Your task to perform on an android device: Search for pizza restaurants on Maps Image 0: 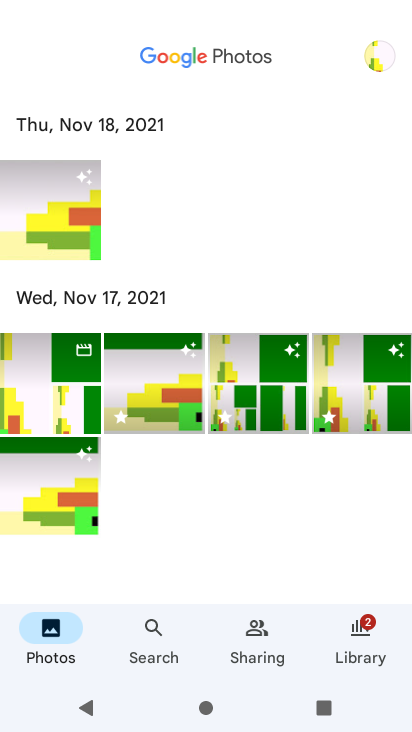
Step 0: press home button
Your task to perform on an android device: Search for pizza restaurants on Maps Image 1: 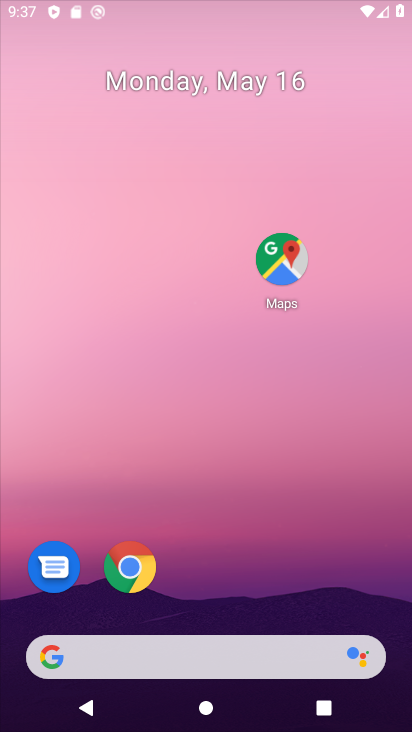
Step 1: drag from (269, 541) to (230, 101)
Your task to perform on an android device: Search for pizza restaurants on Maps Image 2: 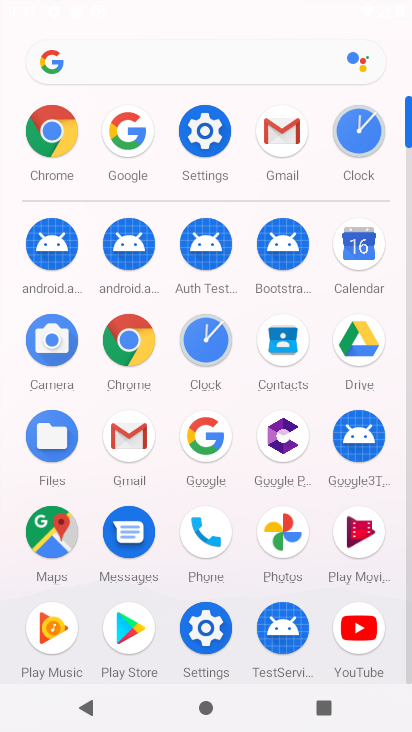
Step 2: click (54, 532)
Your task to perform on an android device: Search for pizza restaurants on Maps Image 3: 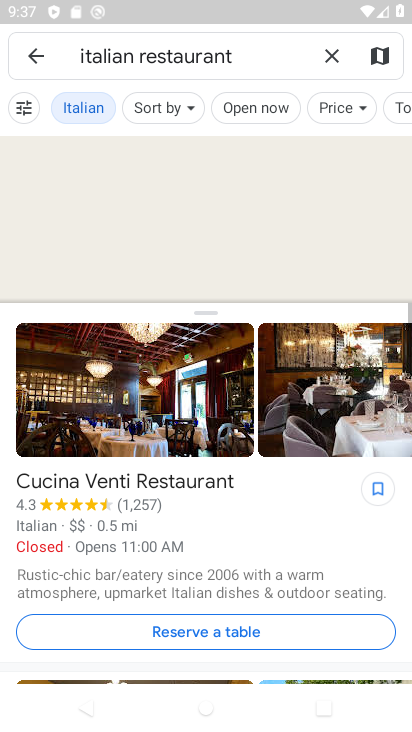
Step 3: click (332, 54)
Your task to perform on an android device: Search for pizza restaurants on Maps Image 4: 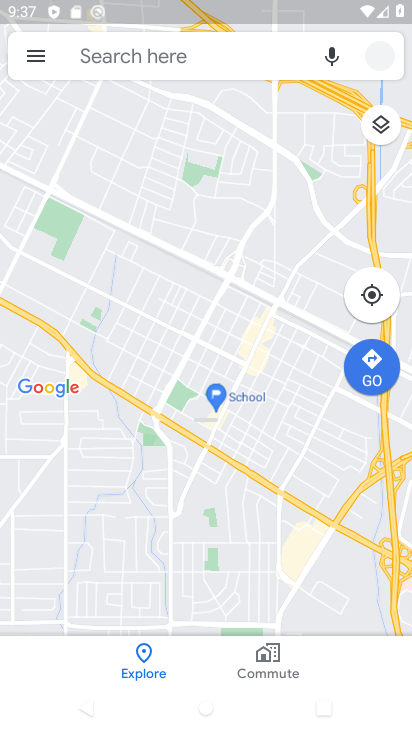
Step 4: click (193, 54)
Your task to perform on an android device: Search for pizza restaurants on Maps Image 5: 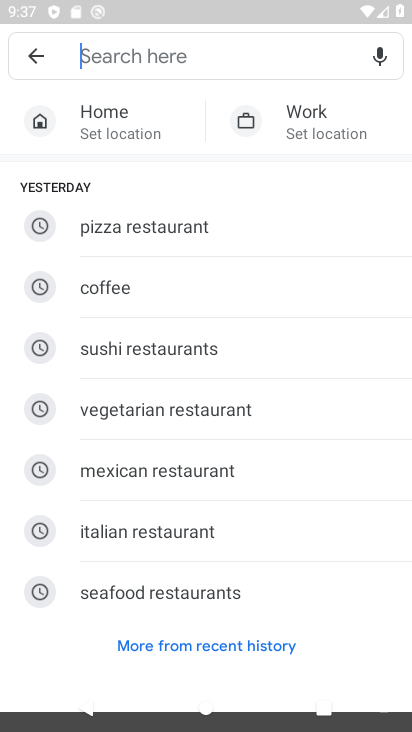
Step 5: click (162, 51)
Your task to perform on an android device: Search for pizza restaurants on Maps Image 6: 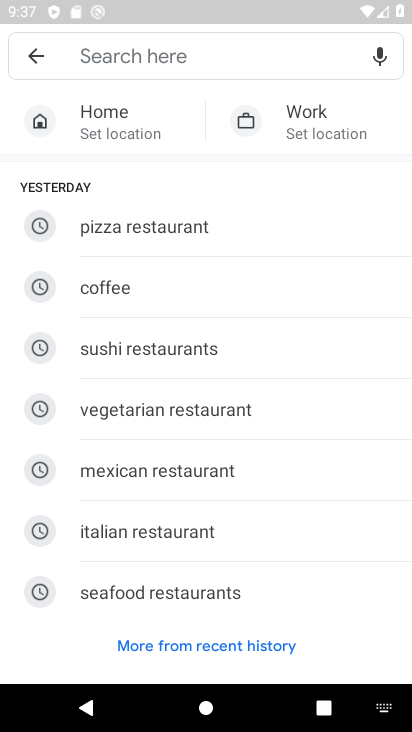
Step 6: click (173, 220)
Your task to perform on an android device: Search for pizza restaurants on Maps Image 7: 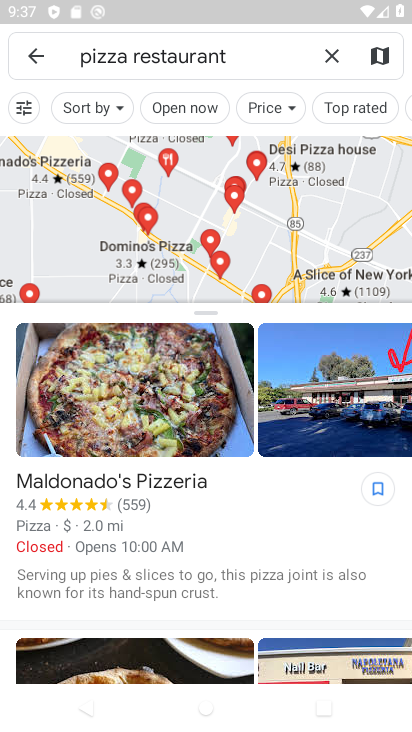
Step 7: task complete